Your task to perform on an android device: Empty the shopping cart on costco.com. Add dell xps to the cart on costco.com, then select checkout. Image 0: 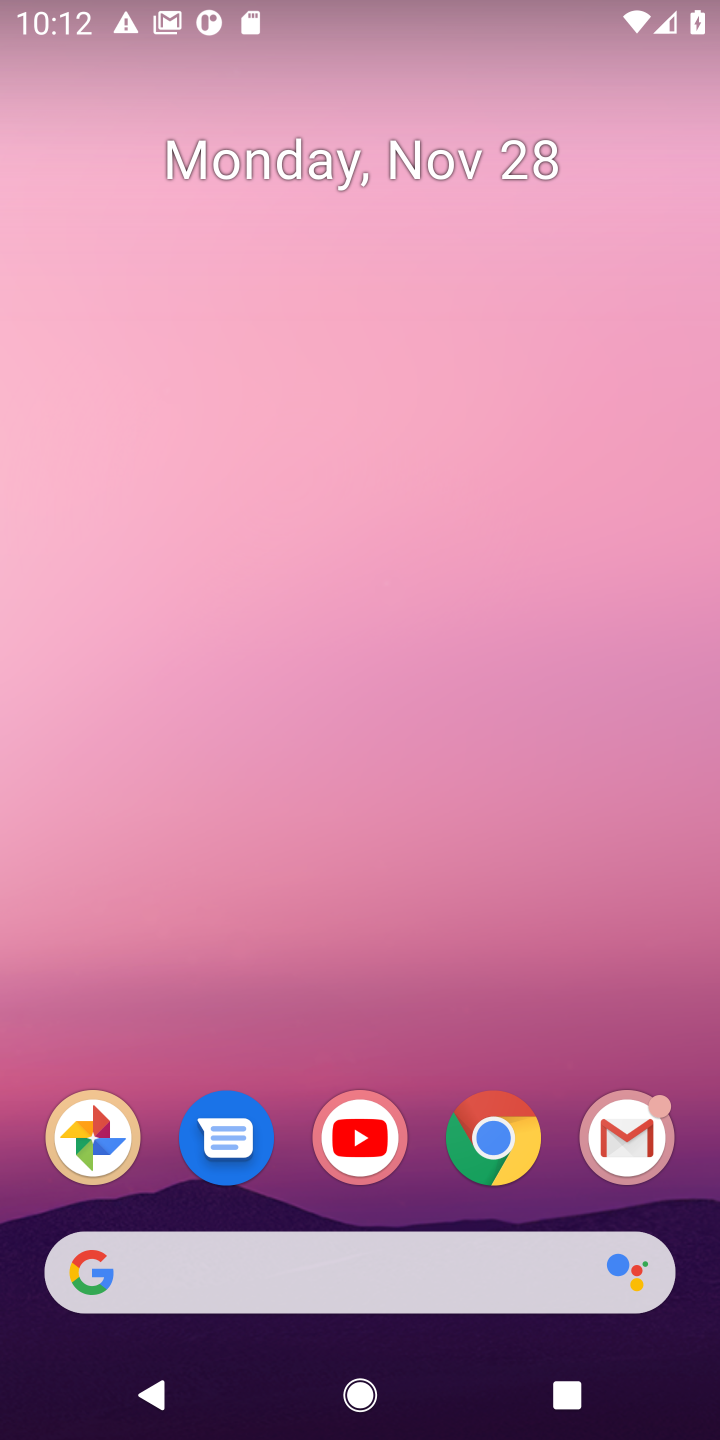
Step 0: click (497, 1142)
Your task to perform on an android device: Empty the shopping cart on costco.com. Add dell xps to the cart on costco.com, then select checkout. Image 1: 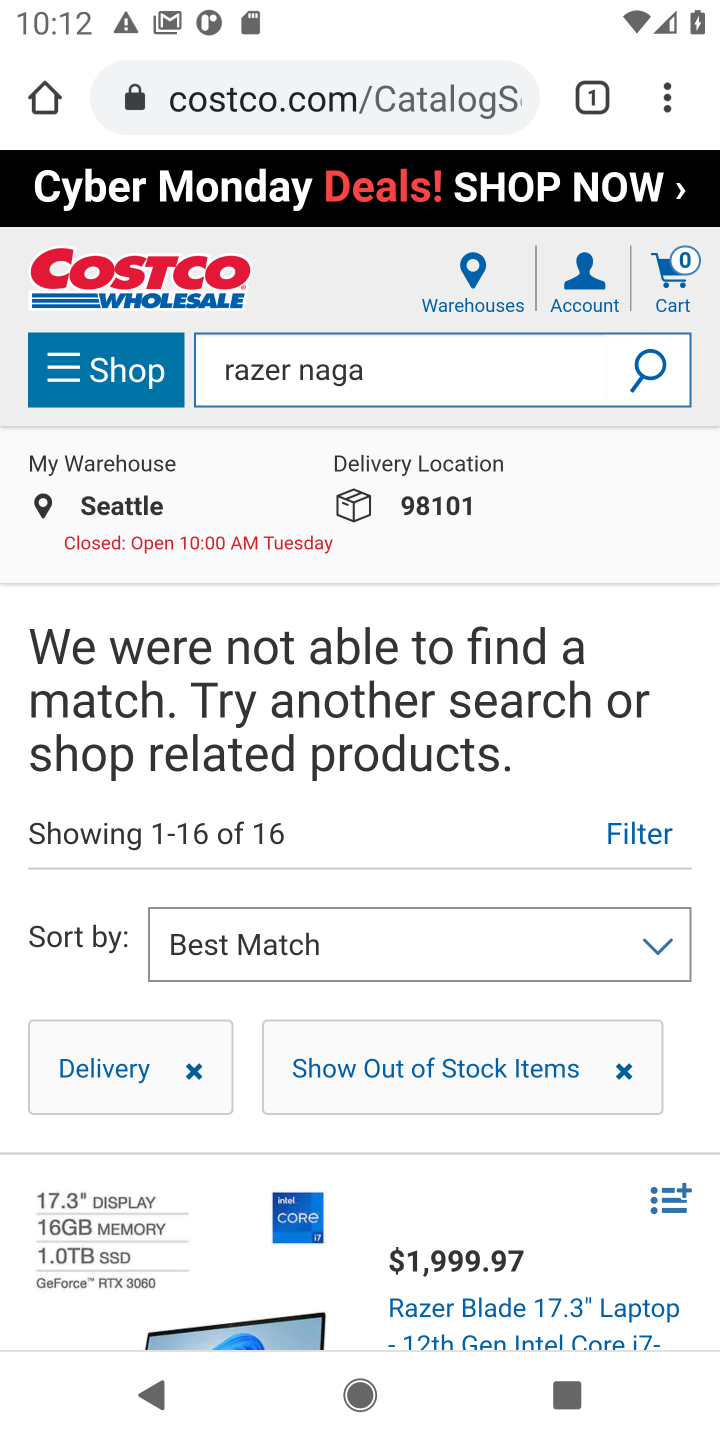
Step 1: click (667, 276)
Your task to perform on an android device: Empty the shopping cart on costco.com. Add dell xps to the cart on costco.com, then select checkout. Image 2: 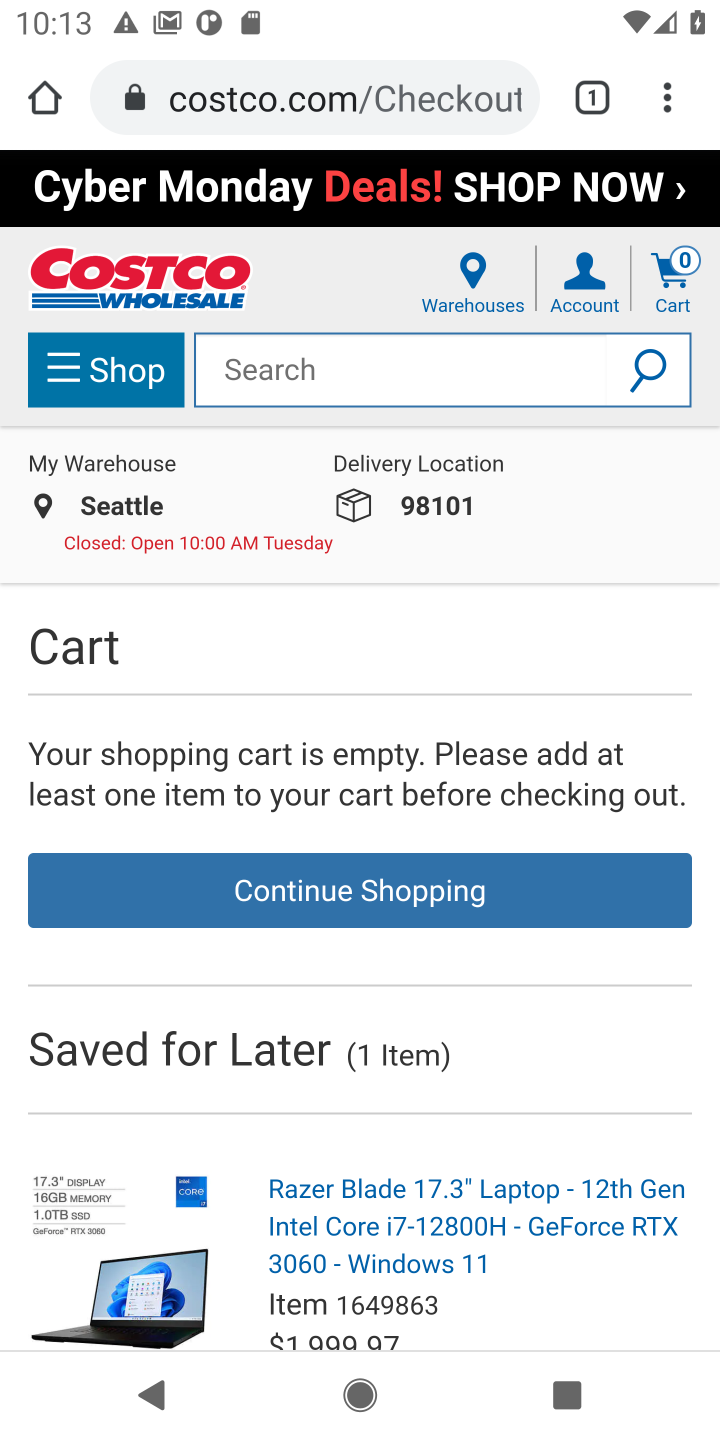
Step 2: click (329, 380)
Your task to perform on an android device: Empty the shopping cart on costco.com. Add dell xps to the cart on costco.com, then select checkout. Image 3: 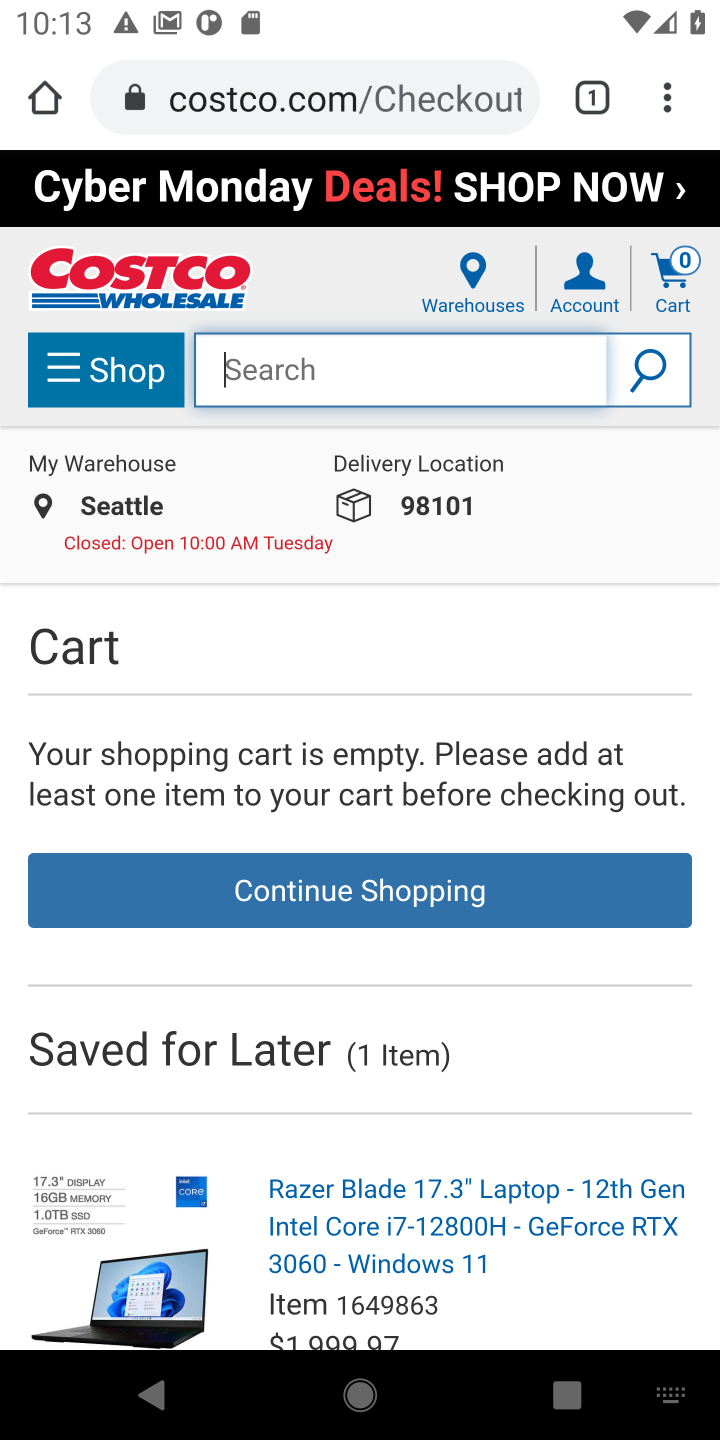
Step 3: type "dell xps"
Your task to perform on an android device: Empty the shopping cart on costco.com. Add dell xps to the cart on costco.com, then select checkout. Image 4: 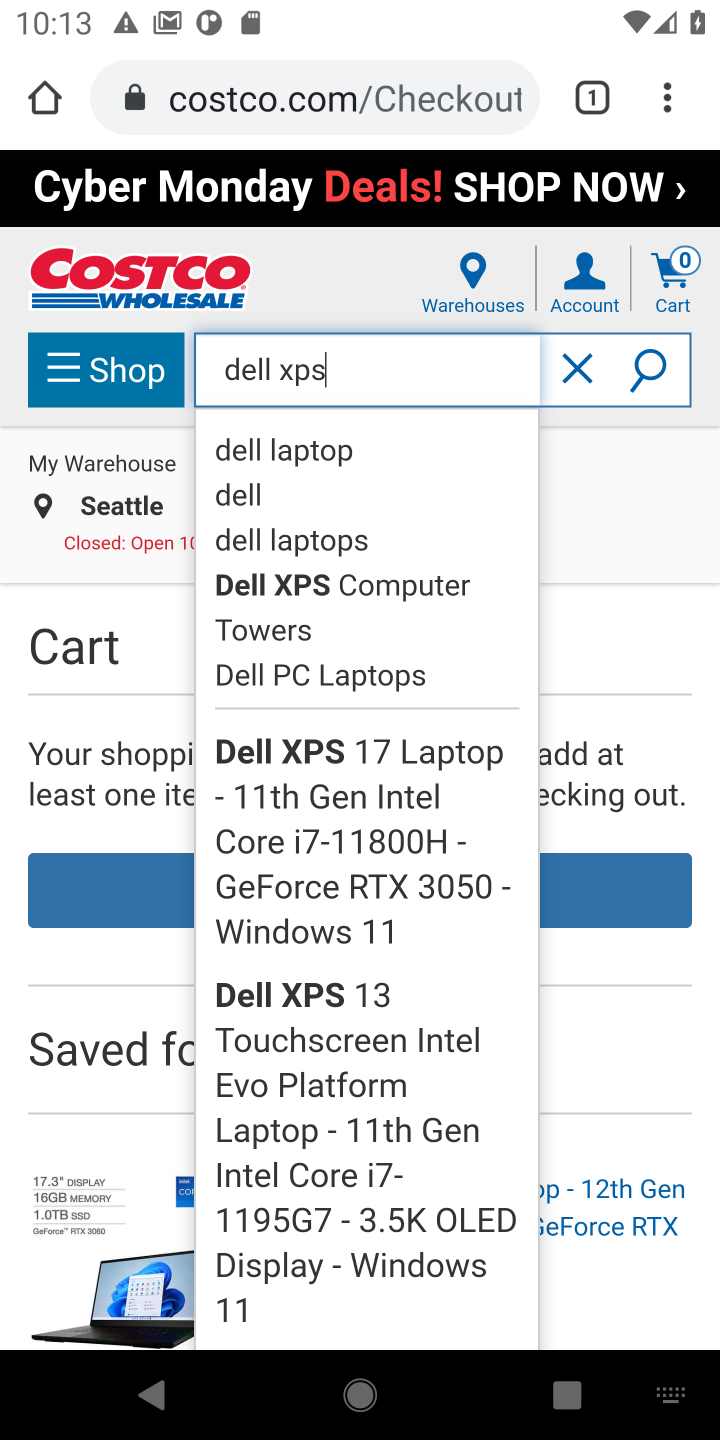
Step 4: click (645, 372)
Your task to perform on an android device: Empty the shopping cart on costco.com. Add dell xps to the cart on costco.com, then select checkout. Image 5: 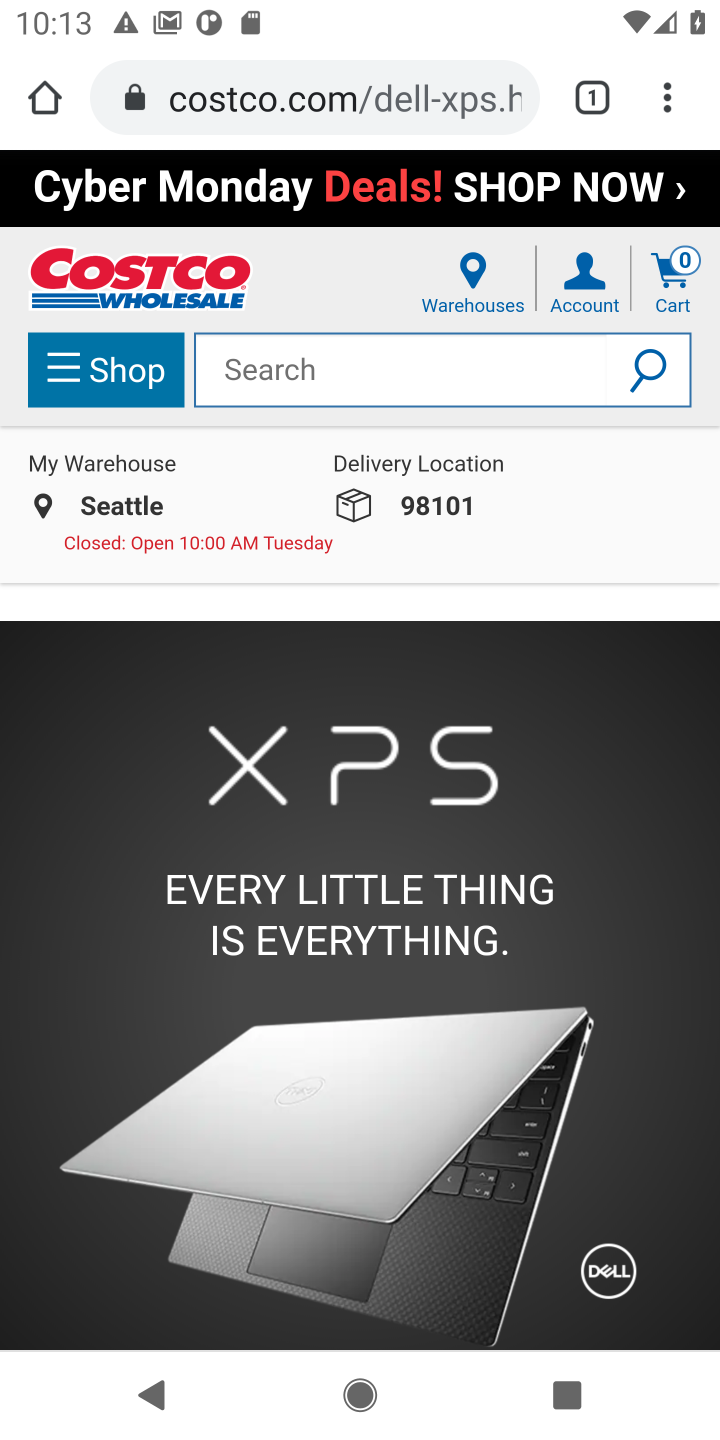
Step 5: task complete